Your task to perform on an android device: Do I have any events this weekend? Image 0: 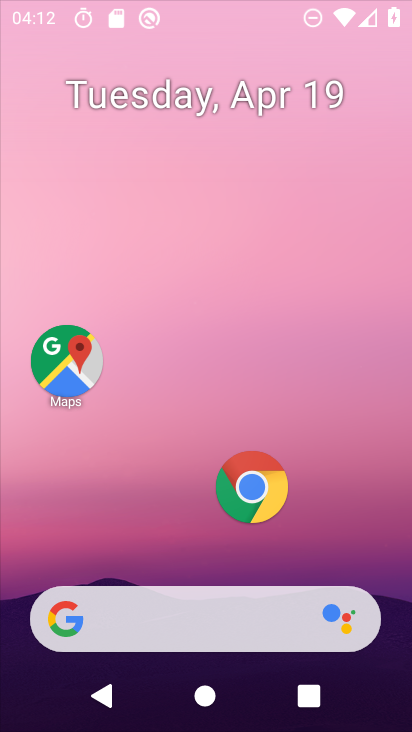
Step 0: drag from (160, 547) to (294, 8)
Your task to perform on an android device: Do I have any events this weekend? Image 1: 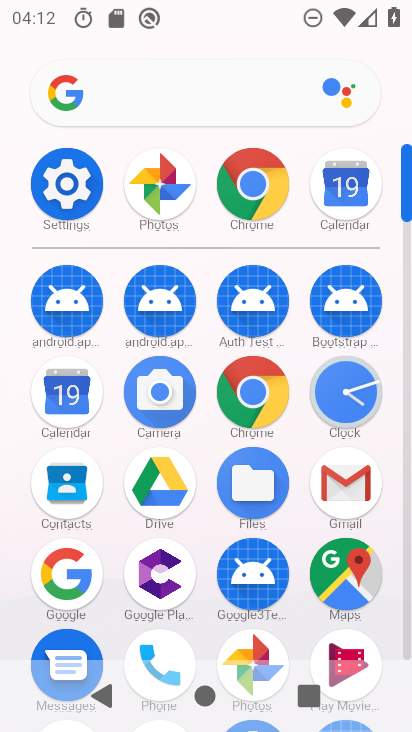
Step 1: click (69, 392)
Your task to perform on an android device: Do I have any events this weekend? Image 2: 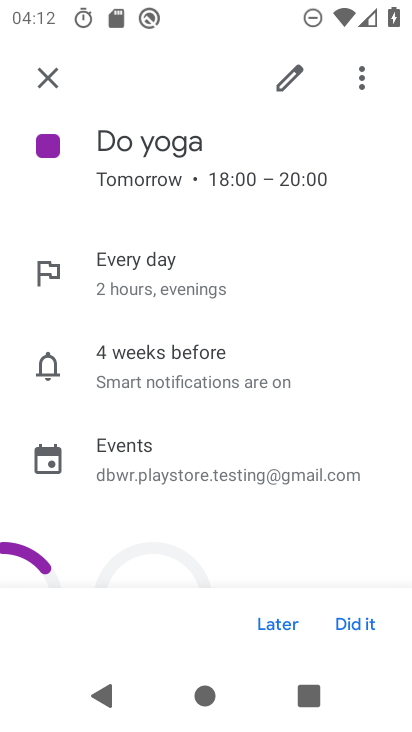
Step 2: click (53, 80)
Your task to perform on an android device: Do I have any events this weekend? Image 3: 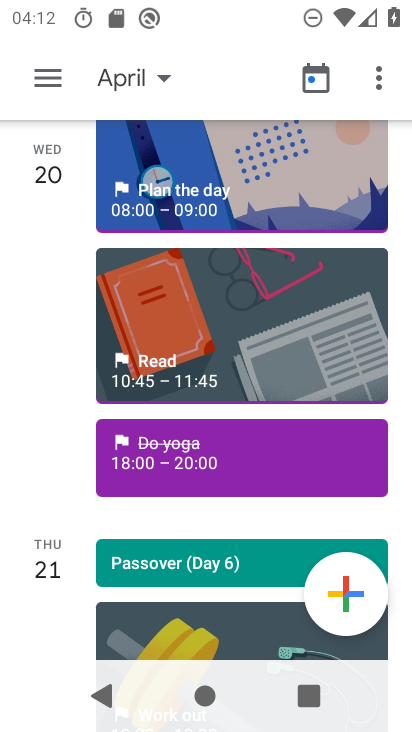
Step 3: drag from (209, 589) to (341, 108)
Your task to perform on an android device: Do I have any events this weekend? Image 4: 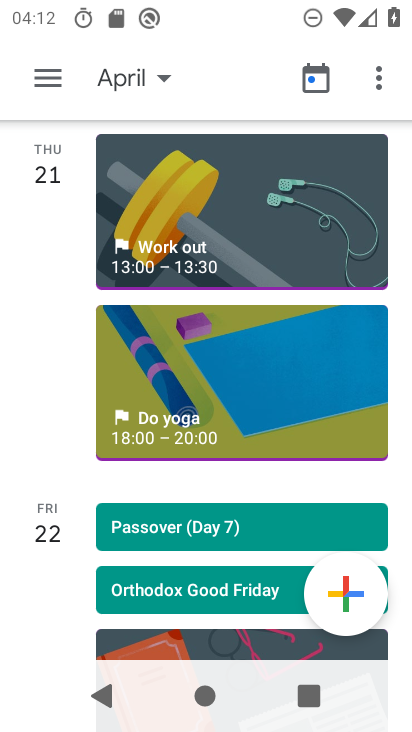
Step 4: drag from (231, 533) to (340, 145)
Your task to perform on an android device: Do I have any events this weekend? Image 5: 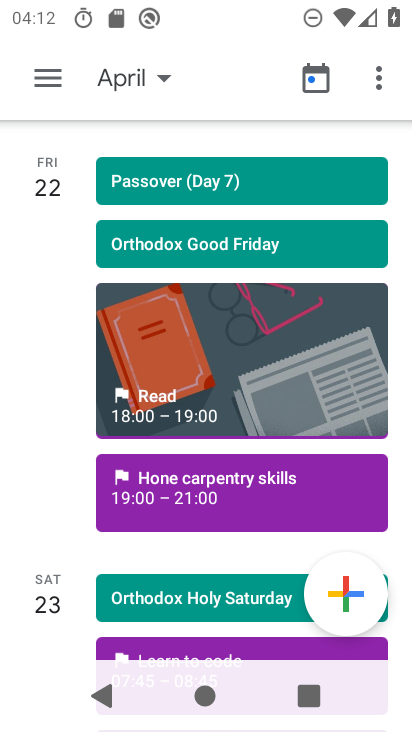
Step 5: drag from (198, 585) to (309, 291)
Your task to perform on an android device: Do I have any events this weekend? Image 6: 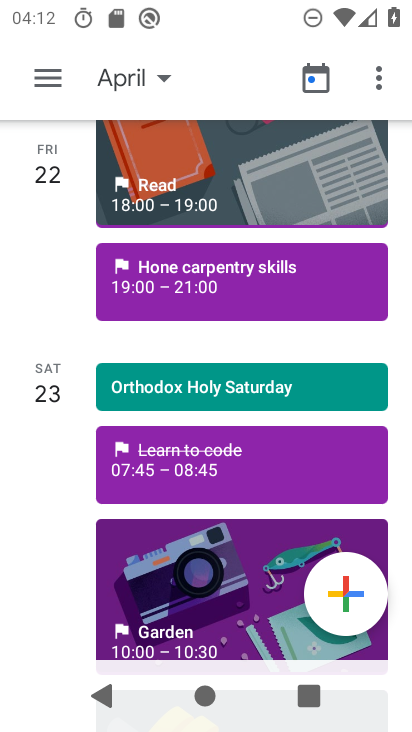
Step 6: click (188, 599)
Your task to perform on an android device: Do I have any events this weekend? Image 7: 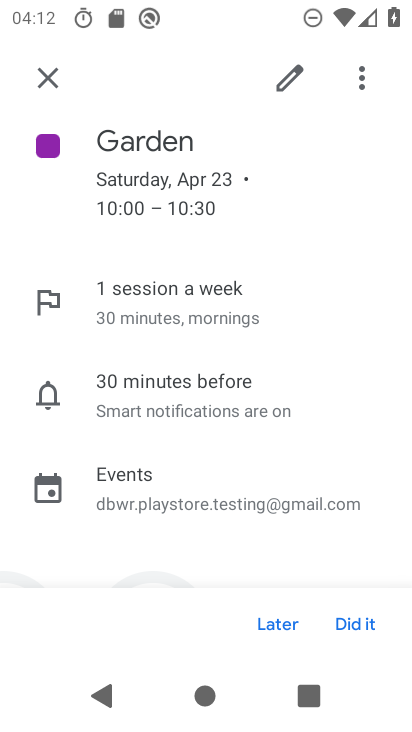
Step 7: task complete